Your task to perform on an android device: Open notification settings Image 0: 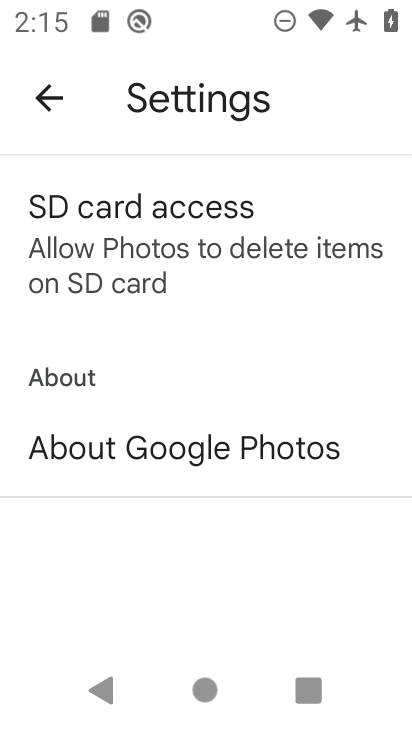
Step 0: press home button
Your task to perform on an android device: Open notification settings Image 1: 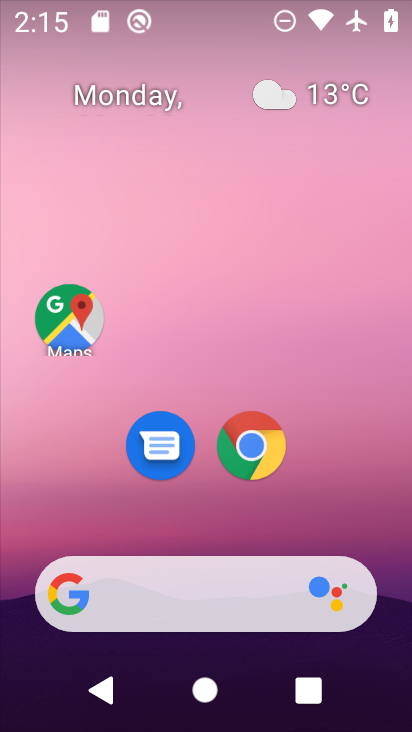
Step 1: drag from (388, 629) to (347, 99)
Your task to perform on an android device: Open notification settings Image 2: 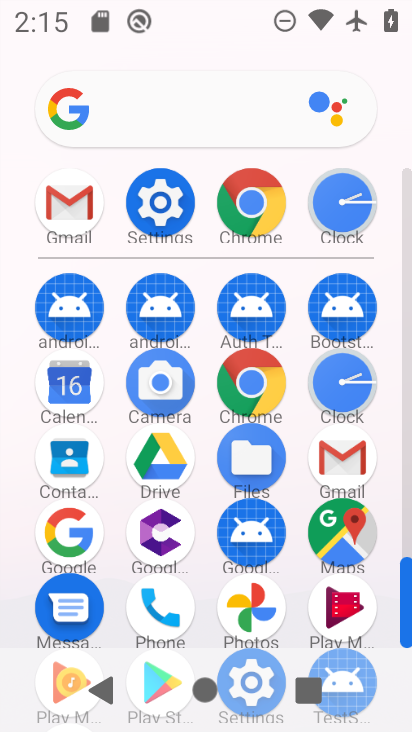
Step 2: click (177, 232)
Your task to perform on an android device: Open notification settings Image 3: 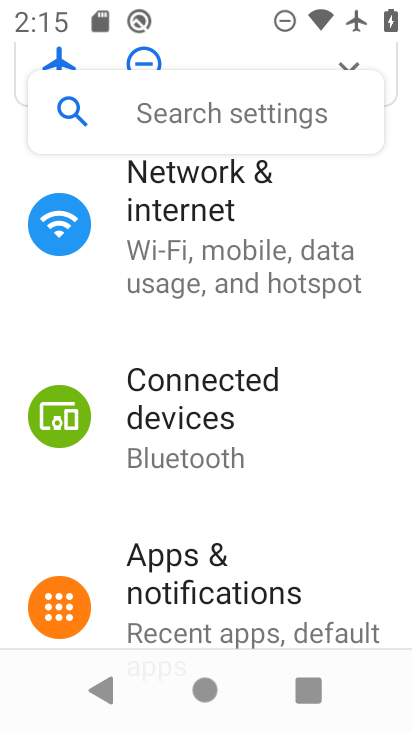
Step 3: click (228, 574)
Your task to perform on an android device: Open notification settings Image 4: 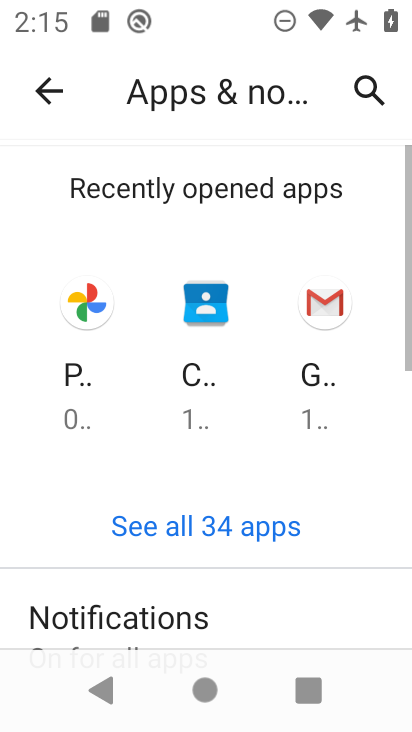
Step 4: click (198, 599)
Your task to perform on an android device: Open notification settings Image 5: 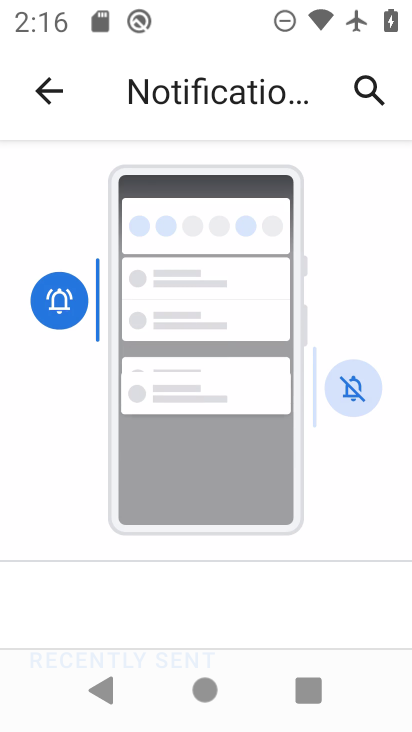
Step 5: task complete